Your task to perform on an android device: Open the web browser Image 0: 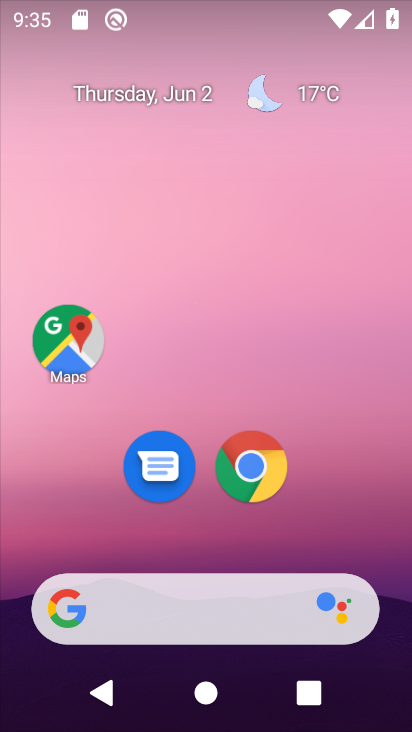
Step 0: click (255, 452)
Your task to perform on an android device: Open the web browser Image 1: 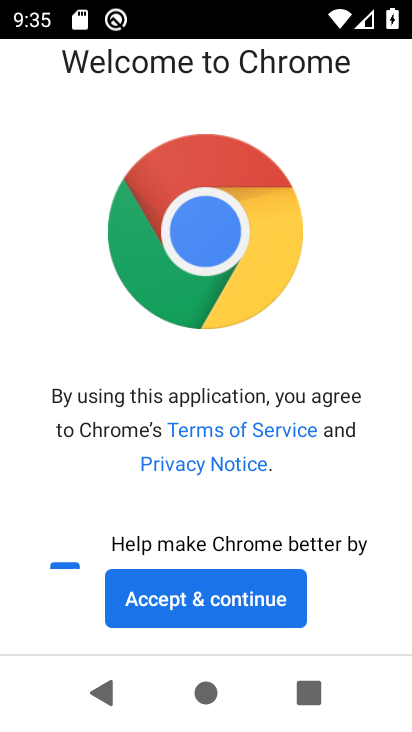
Step 1: click (144, 586)
Your task to perform on an android device: Open the web browser Image 2: 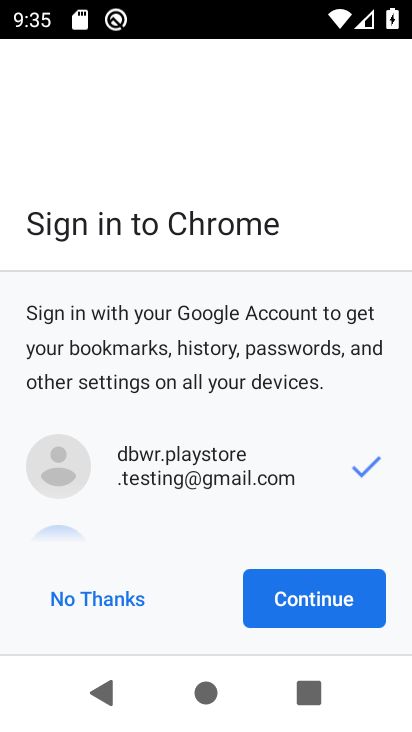
Step 2: click (281, 593)
Your task to perform on an android device: Open the web browser Image 3: 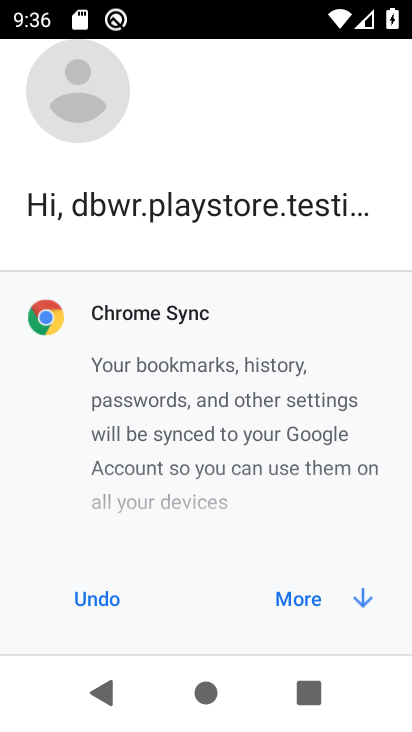
Step 3: task complete